Your task to perform on an android device: Open calendar and show me the first week of next month Image 0: 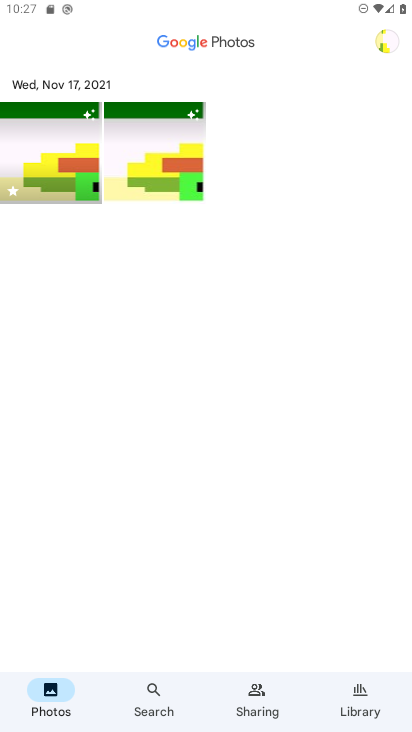
Step 0: press home button
Your task to perform on an android device: Open calendar and show me the first week of next month Image 1: 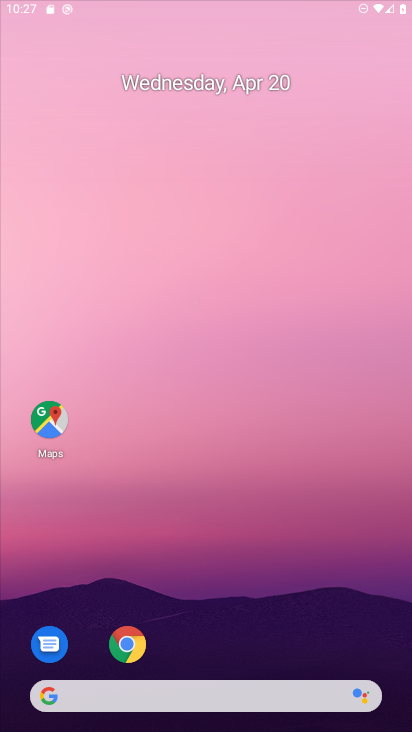
Step 1: drag from (297, 547) to (228, 19)
Your task to perform on an android device: Open calendar and show me the first week of next month Image 2: 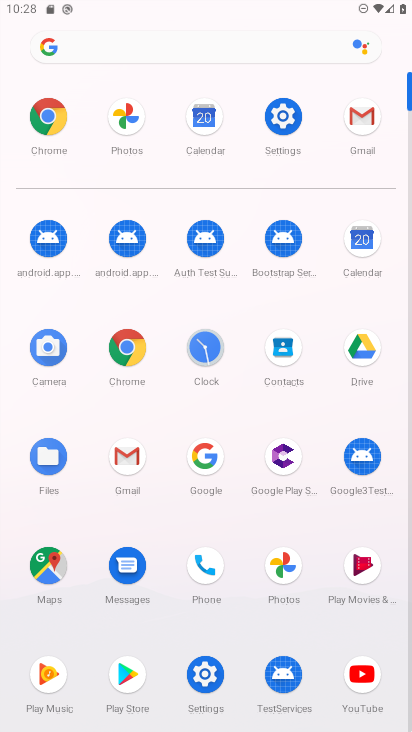
Step 2: click (365, 239)
Your task to perform on an android device: Open calendar and show me the first week of next month Image 3: 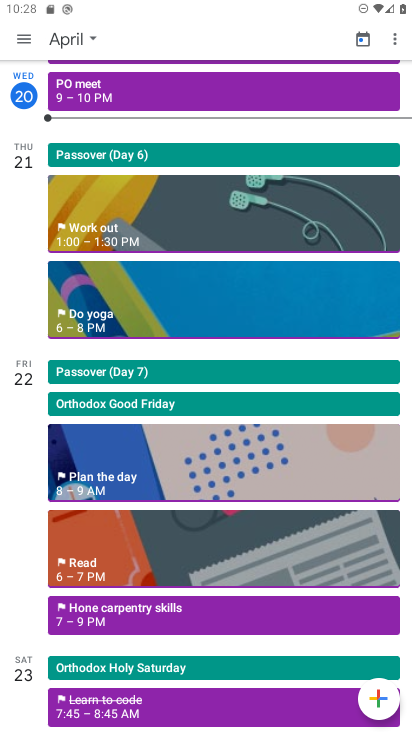
Step 3: click (59, 36)
Your task to perform on an android device: Open calendar and show me the first week of next month Image 4: 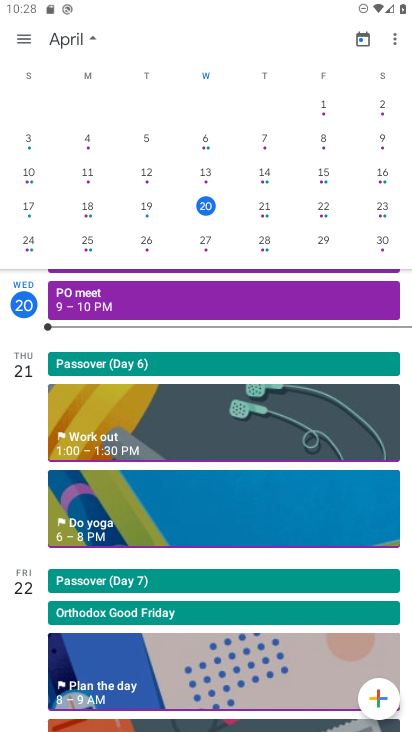
Step 4: drag from (321, 199) to (0, 151)
Your task to perform on an android device: Open calendar and show me the first week of next month Image 5: 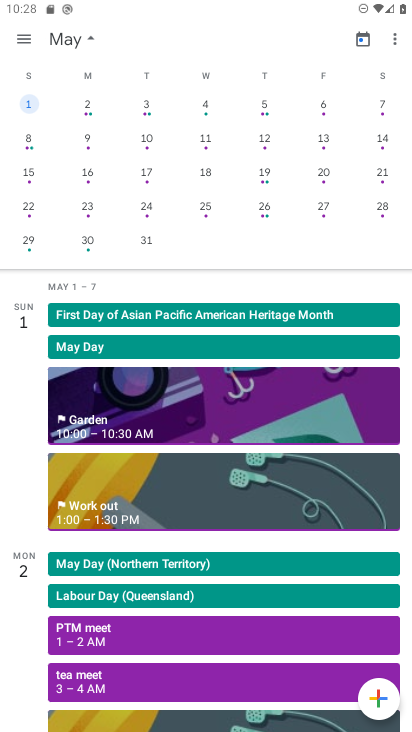
Step 5: click (80, 102)
Your task to perform on an android device: Open calendar and show me the first week of next month Image 6: 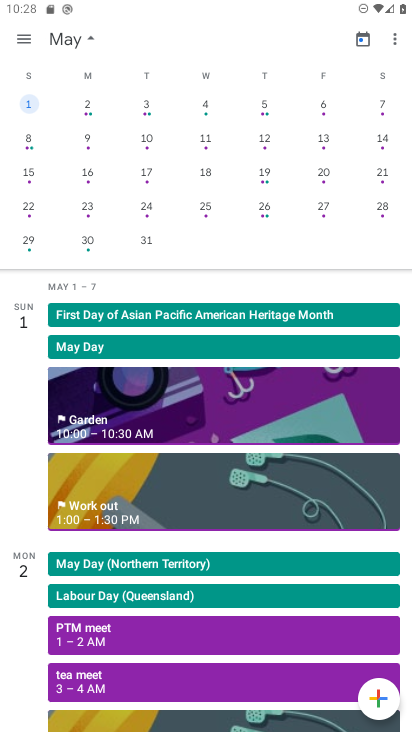
Step 6: click (86, 103)
Your task to perform on an android device: Open calendar and show me the first week of next month Image 7: 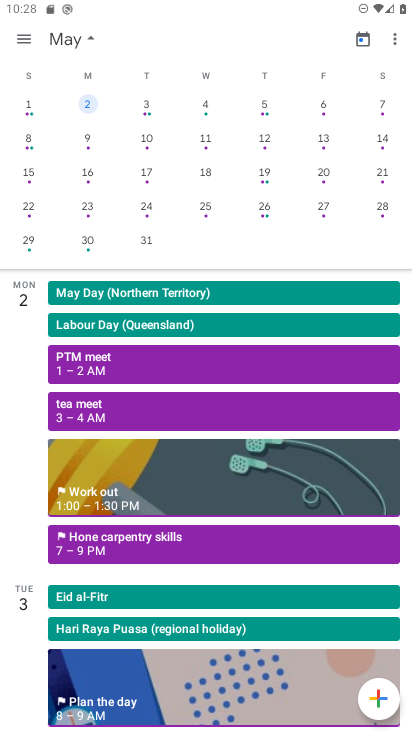
Step 7: task complete